Your task to perform on an android device: Search for pizza restaurants on Maps Image 0: 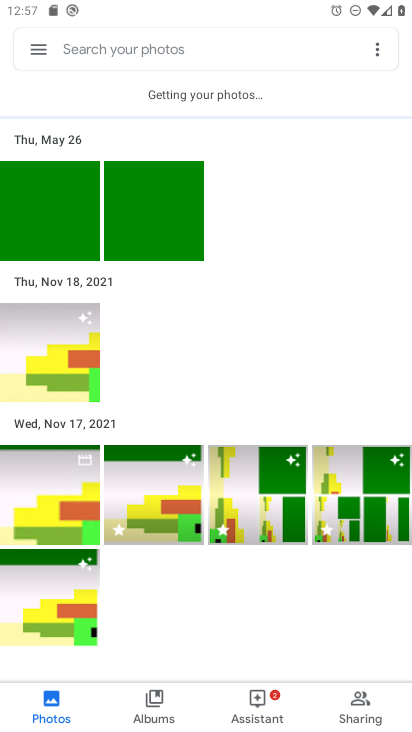
Step 0: press home button
Your task to perform on an android device: Search for pizza restaurants on Maps Image 1: 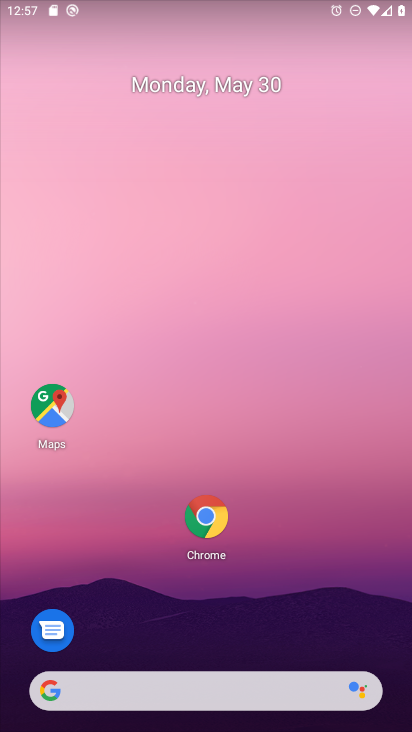
Step 1: click (39, 409)
Your task to perform on an android device: Search for pizza restaurants on Maps Image 2: 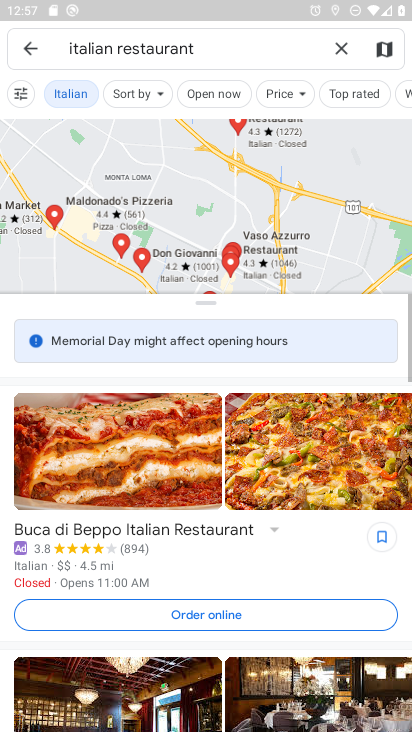
Step 2: click (342, 46)
Your task to perform on an android device: Search for pizza restaurants on Maps Image 3: 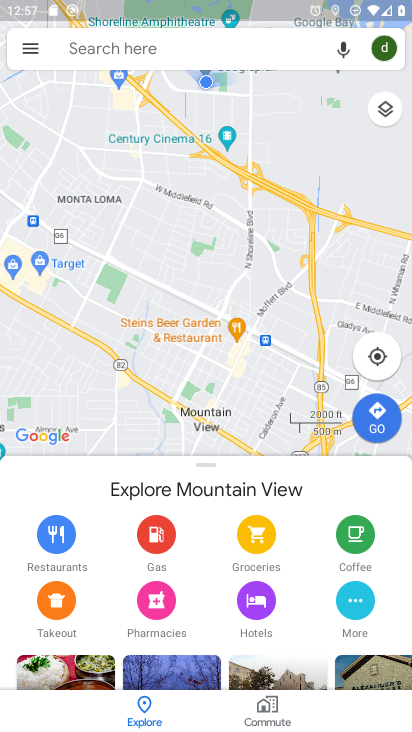
Step 3: click (181, 42)
Your task to perform on an android device: Search for pizza restaurants on Maps Image 4: 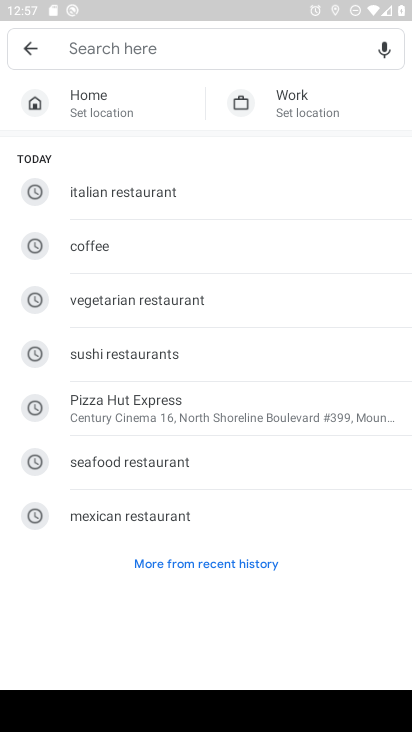
Step 4: type "pizza"
Your task to perform on an android device: Search for pizza restaurants on Maps Image 5: 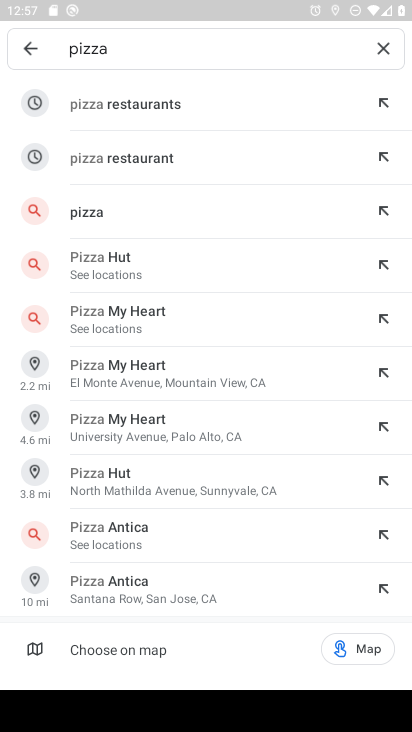
Step 5: click (123, 102)
Your task to perform on an android device: Search for pizza restaurants on Maps Image 6: 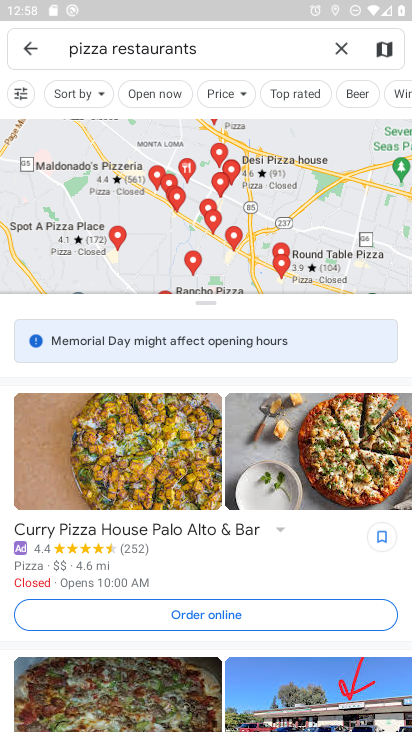
Step 6: task complete